Your task to perform on an android device: Search for Mexican restaurants on Maps Image 0: 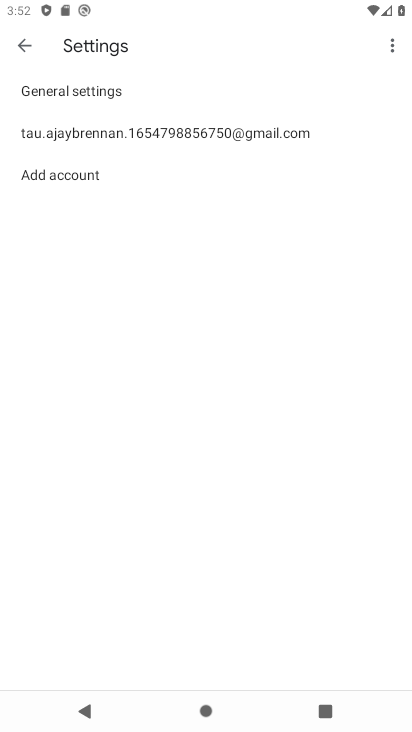
Step 0: press home button
Your task to perform on an android device: Search for Mexican restaurants on Maps Image 1: 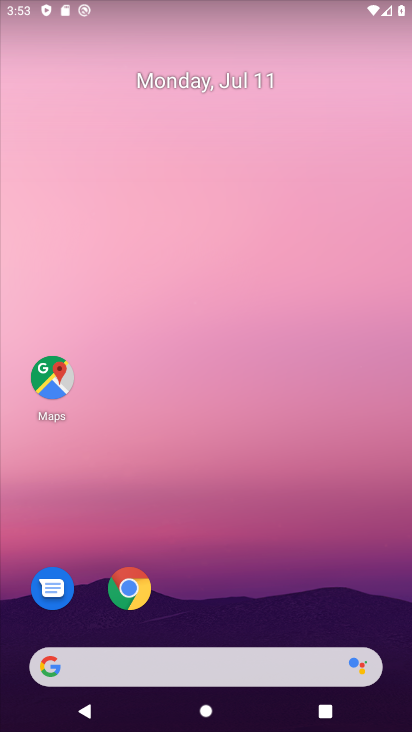
Step 1: drag from (306, 593) to (318, 189)
Your task to perform on an android device: Search for Mexican restaurants on Maps Image 2: 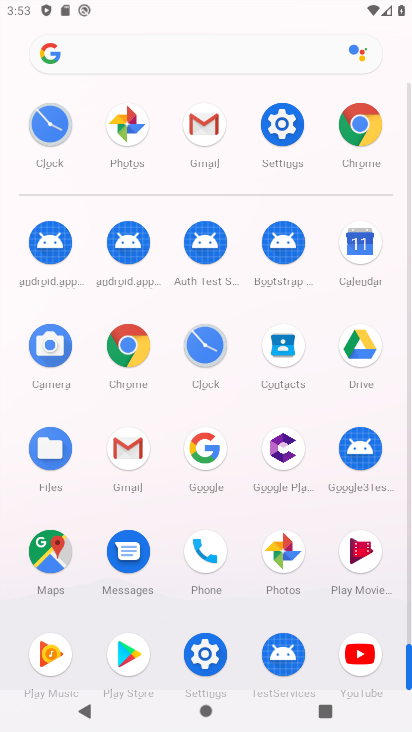
Step 2: click (56, 548)
Your task to perform on an android device: Search for Mexican restaurants on Maps Image 3: 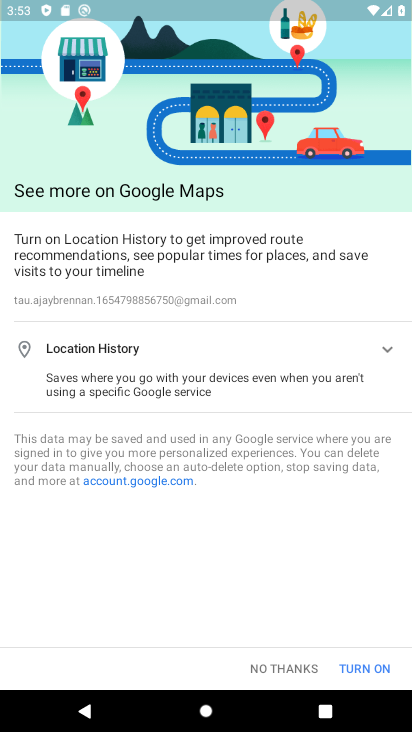
Step 3: press back button
Your task to perform on an android device: Search for Mexican restaurants on Maps Image 4: 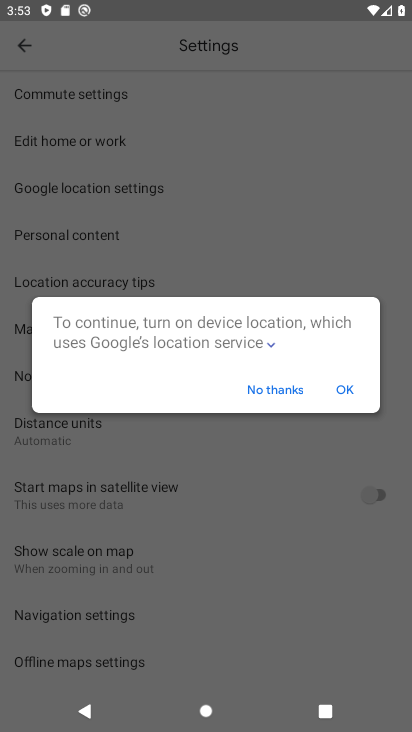
Step 4: click (273, 393)
Your task to perform on an android device: Search for Mexican restaurants on Maps Image 5: 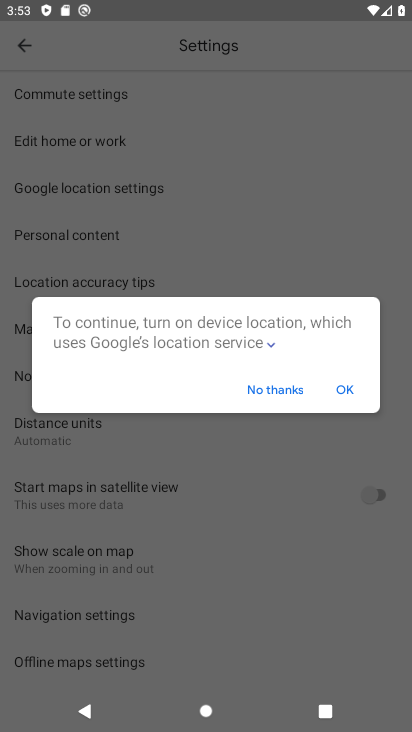
Step 5: press back button
Your task to perform on an android device: Search for Mexican restaurants on Maps Image 6: 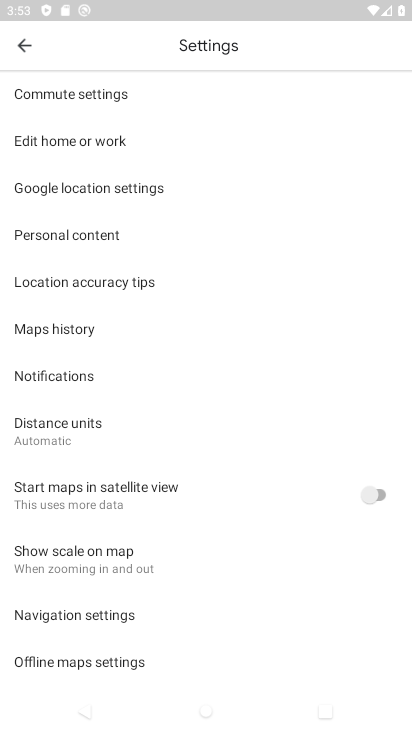
Step 6: press back button
Your task to perform on an android device: Search for Mexican restaurants on Maps Image 7: 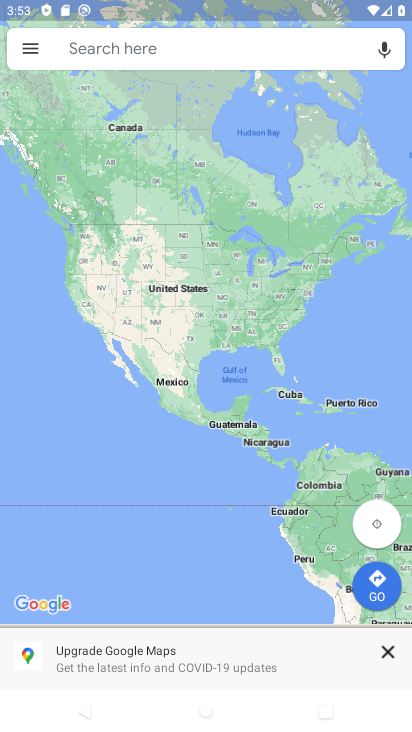
Step 7: click (231, 46)
Your task to perform on an android device: Search for Mexican restaurants on Maps Image 8: 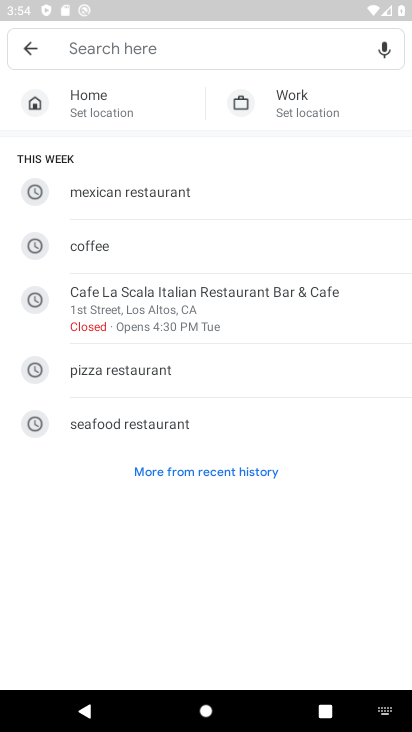
Step 8: type "mexcian restaurants"
Your task to perform on an android device: Search for Mexican restaurants on Maps Image 9: 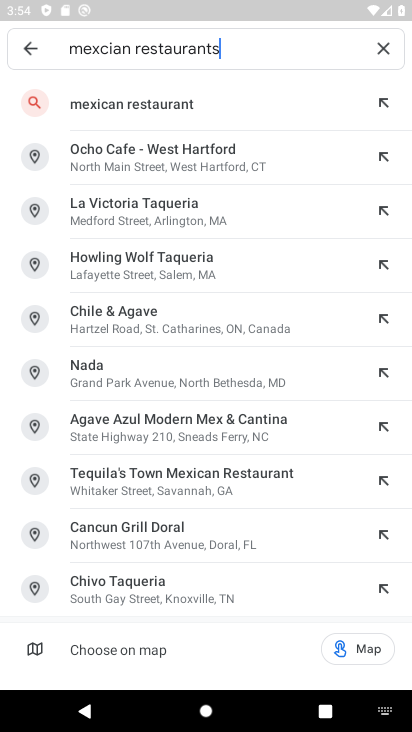
Step 9: click (256, 97)
Your task to perform on an android device: Search for Mexican restaurants on Maps Image 10: 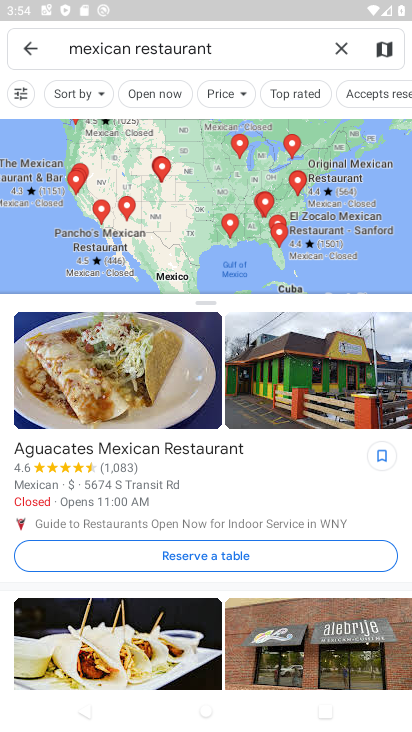
Step 10: task complete